Your task to perform on an android device: find which apps use the phone's location Image 0: 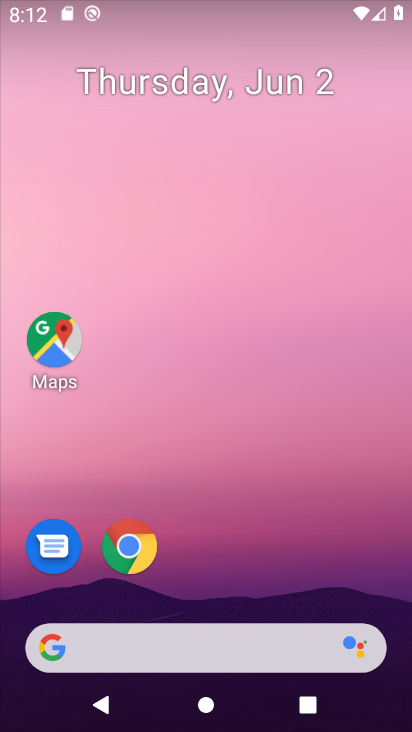
Step 0: drag from (253, 682) to (197, 254)
Your task to perform on an android device: find which apps use the phone's location Image 1: 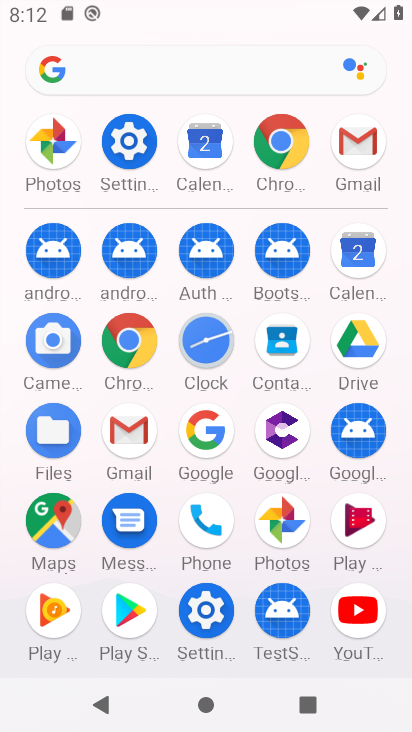
Step 1: click (206, 624)
Your task to perform on an android device: find which apps use the phone's location Image 2: 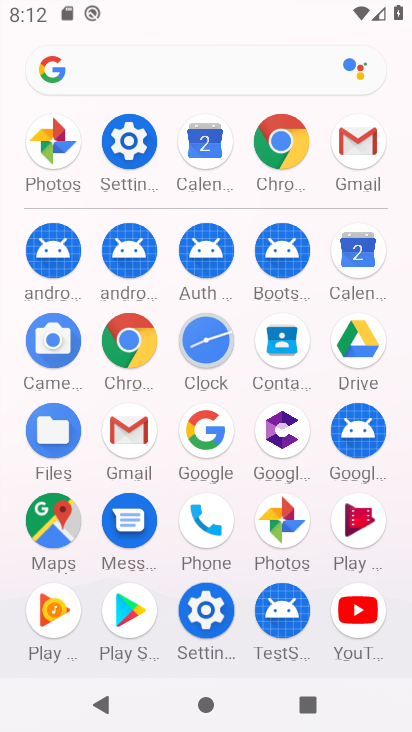
Step 2: click (206, 624)
Your task to perform on an android device: find which apps use the phone's location Image 3: 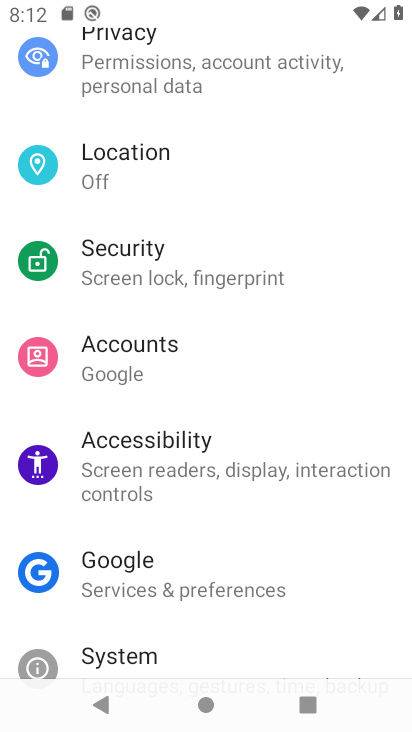
Step 3: click (111, 162)
Your task to perform on an android device: find which apps use the phone's location Image 4: 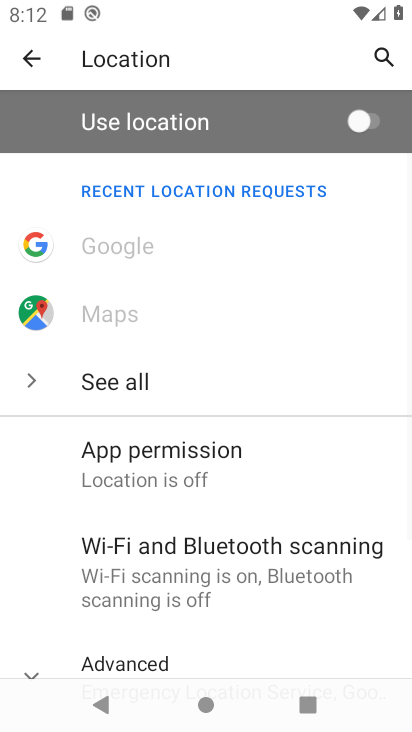
Step 4: click (159, 463)
Your task to perform on an android device: find which apps use the phone's location Image 5: 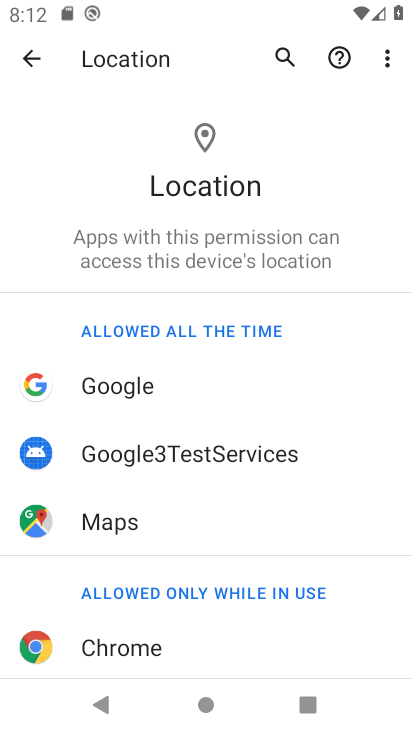
Step 5: task complete